Your task to perform on an android device: change the clock style Image 0: 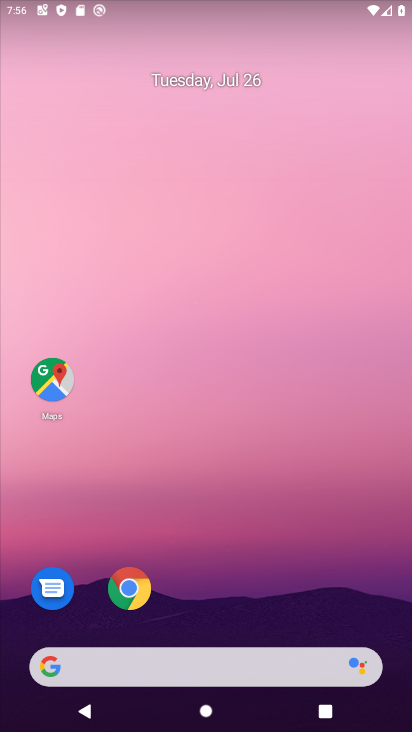
Step 0: drag from (315, 485) to (313, 162)
Your task to perform on an android device: change the clock style Image 1: 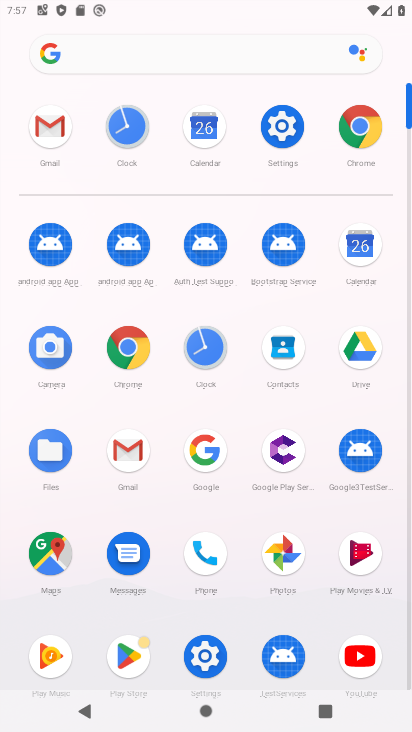
Step 1: click (220, 347)
Your task to perform on an android device: change the clock style Image 2: 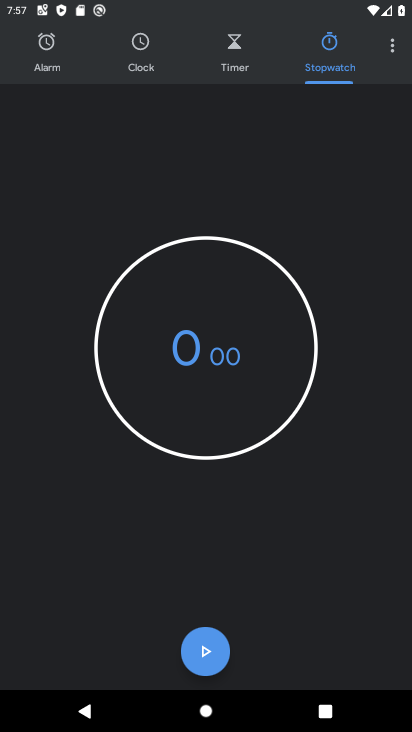
Step 2: click (389, 53)
Your task to perform on an android device: change the clock style Image 3: 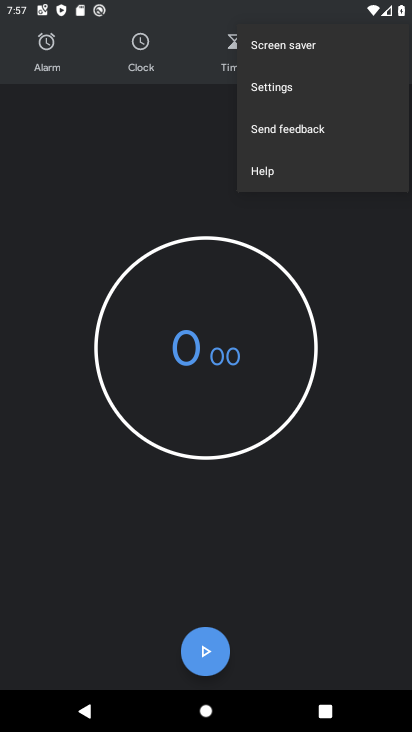
Step 3: click (274, 86)
Your task to perform on an android device: change the clock style Image 4: 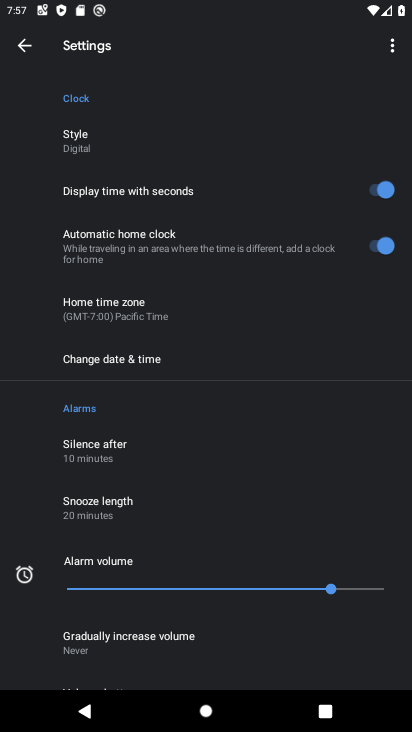
Step 4: click (167, 136)
Your task to perform on an android device: change the clock style Image 5: 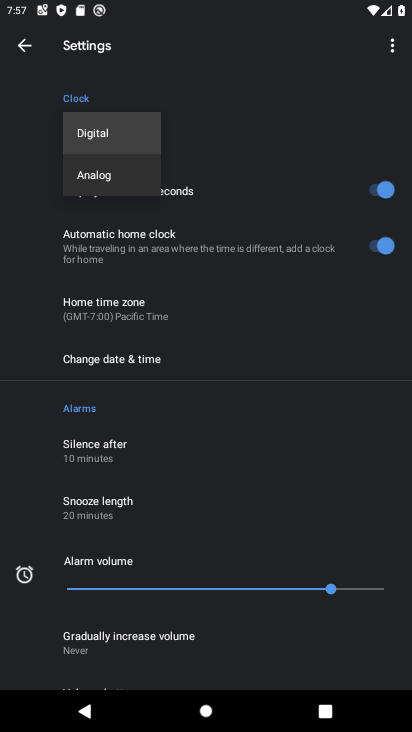
Step 5: click (131, 171)
Your task to perform on an android device: change the clock style Image 6: 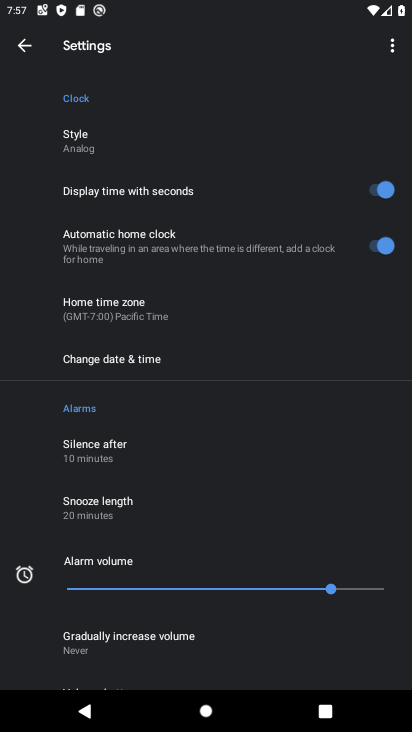
Step 6: task complete